Your task to perform on an android device: Go to sound settings Image 0: 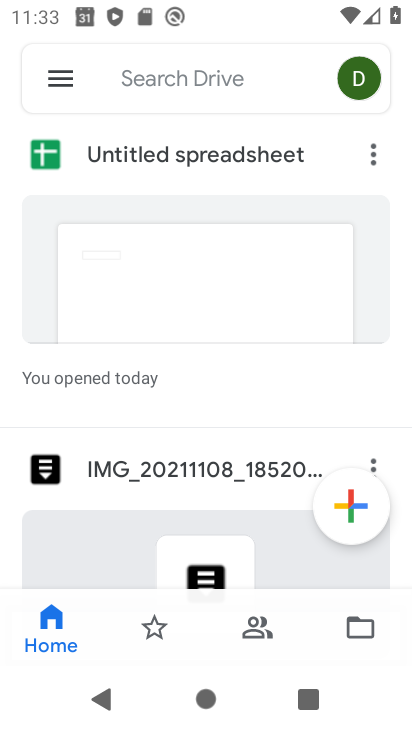
Step 0: press home button
Your task to perform on an android device: Go to sound settings Image 1: 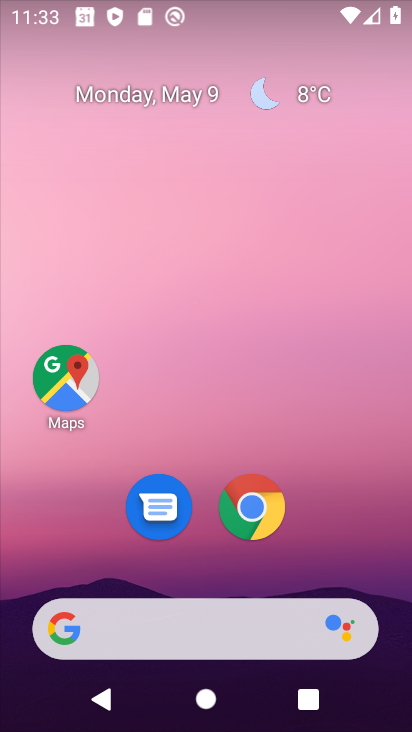
Step 1: drag from (324, 558) to (286, 130)
Your task to perform on an android device: Go to sound settings Image 2: 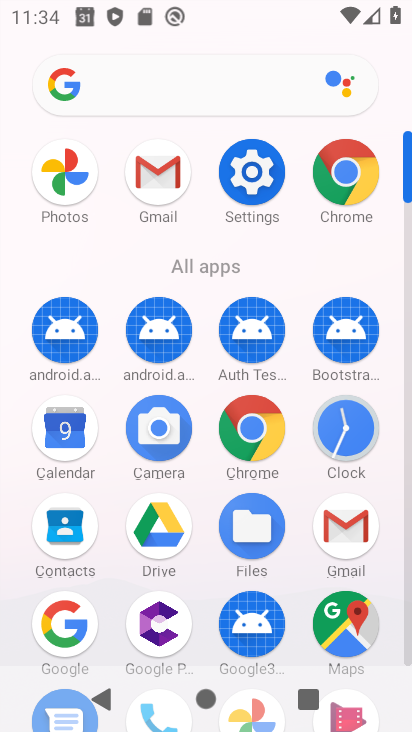
Step 2: click (239, 182)
Your task to perform on an android device: Go to sound settings Image 3: 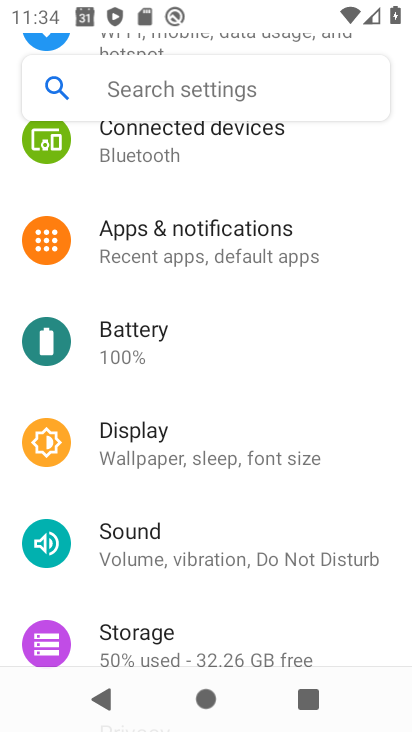
Step 3: click (228, 539)
Your task to perform on an android device: Go to sound settings Image 4: 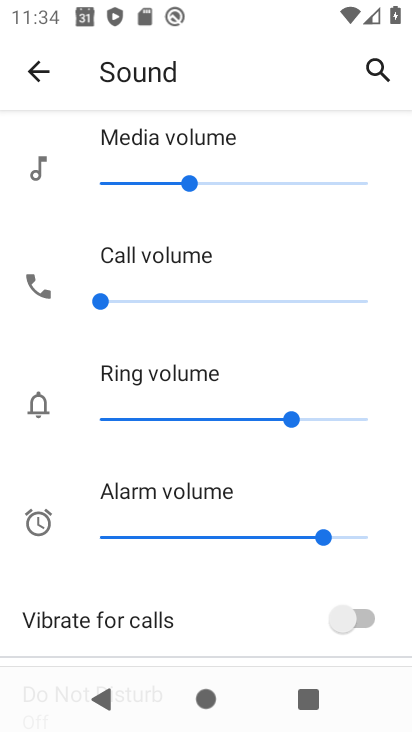
Step 4: task complete